Your task to perform on an android device: Is it going to rain tomorrow? Image 0: 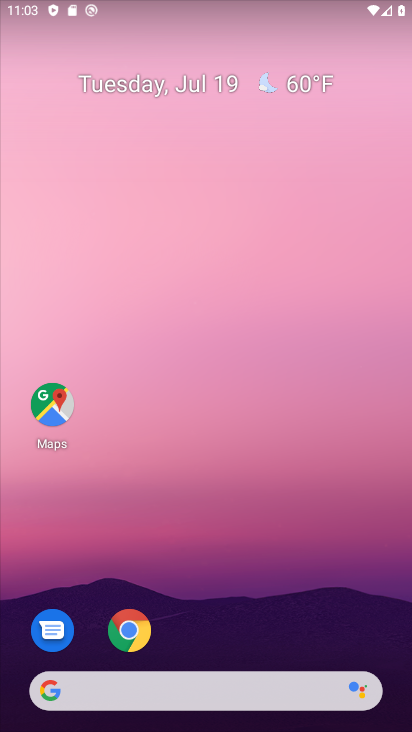
Step 0: drag from (332, 627) to (302, 119)
Your task to perform on an android device: Is it going to rain tomorrow? Image 1: 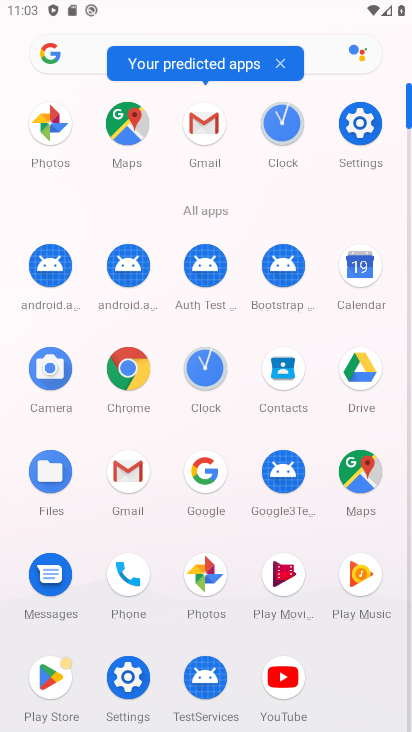
Step 1: click (128, 380)
Your task to perform on an android device: Is it going to rain tomorrow? Image 2: 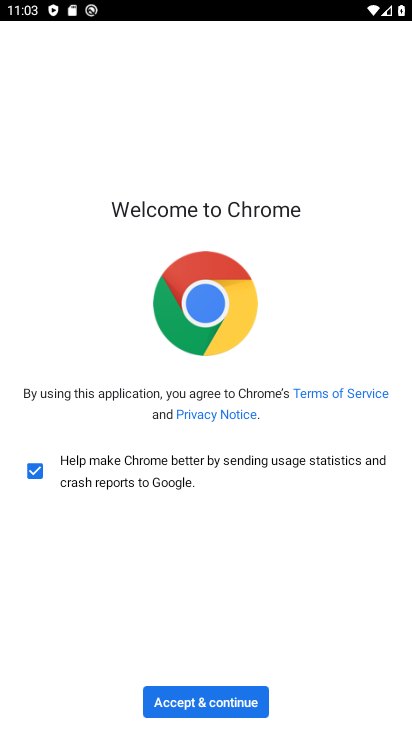
Step 2: click (193, 692)
Your task to perform on an android device: Is it going to rain tomorrow? Image 3: 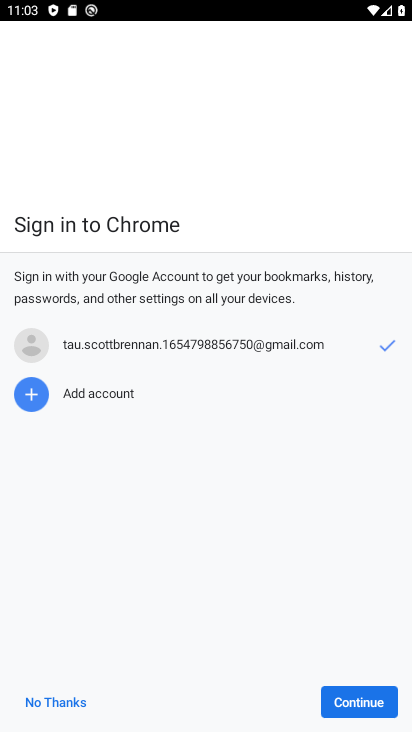
Step 3: click (340, 701)
Your task to perform on an android device: Is it going to rain tomorrow? Image 4: 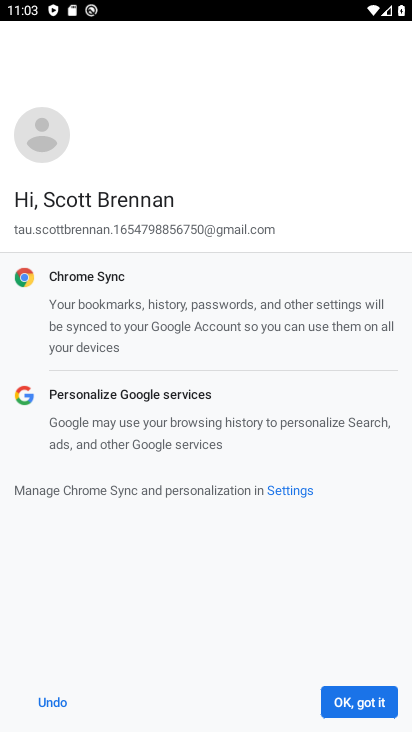
Step 4: click (353, 706)
Your task to perform on an android device: Is it going to rain tomorrow? Image 5: 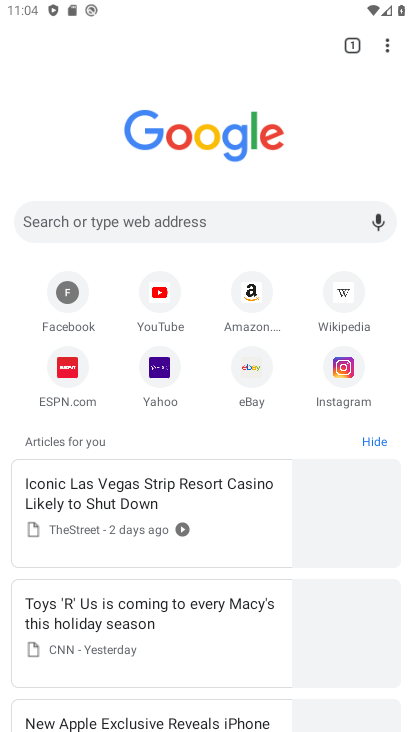
Step 5: click (293, 210)
Your task to perform on an android device: Is it going to rain tomorrow? Image 6: 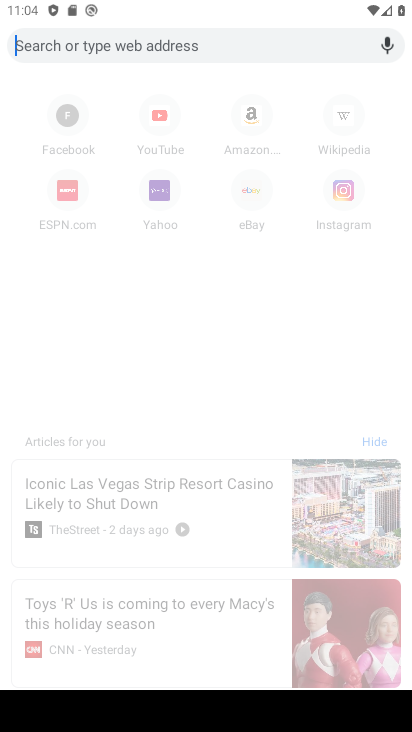
Step 6: type "Is it going to rain tomorrow?"
Your task to perform on an android device: Is it going to rain tomorrow? Image 7: 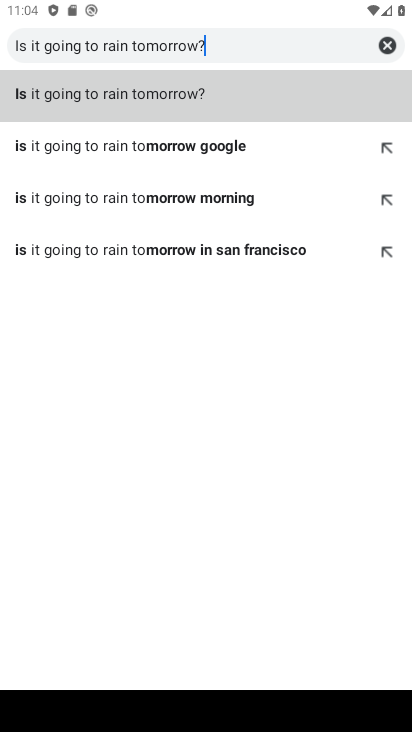
Step 7: click (289, 101)
Your task to perform on an android device: Is it going to rain tomorrow? Image 8: 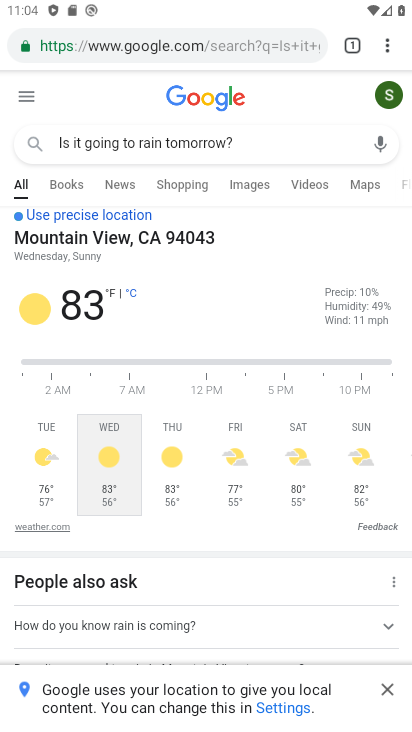
Step 8: task complete